Your task to perform on an android device: Search for sushi restaurants on Maps Image 0: 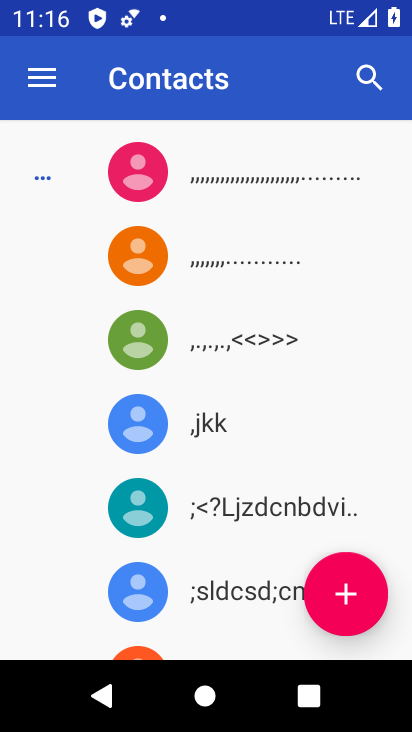
Step 0: press home button
Your task to perform on an android device: Search for sushi restaurants on Maps Image 1: 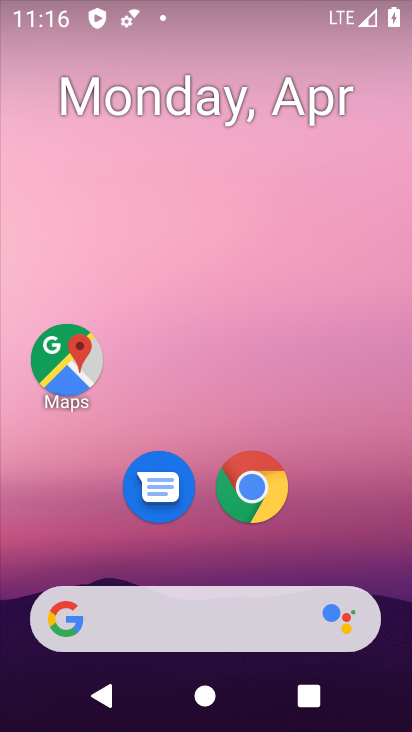
Step 1: click (377, 533)
Your task to perform on an android device: Search for sushi restaurants on Maps Image 2: 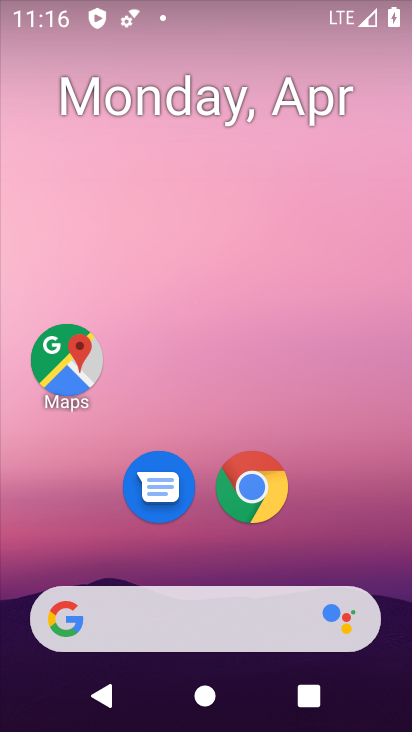
Step 2: drag from (353, 276) to (306, 41)
Your task to perform on an android device: Search for sushi restaurants on Maps Image 3: 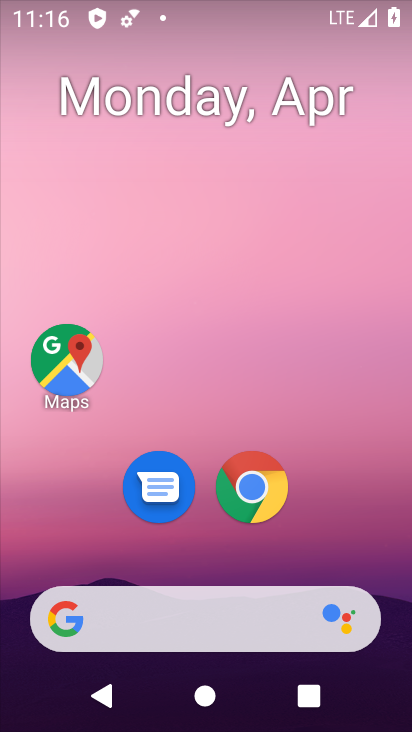
Step 3: drag from (384, 573) to (358, 154)
Your task to perform on an android device: Search for sushi restaurants on Maps Image 4: 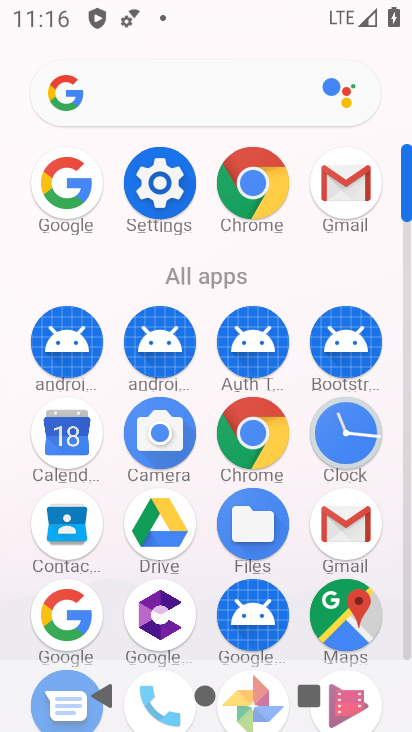
Step 4: click (351, 619)
Your task to perform on an android device: Search for sushi restaurants on Maps Image 5: 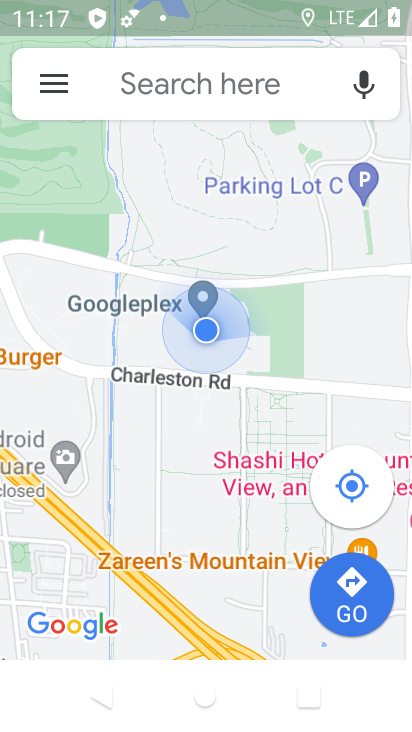
Step 5: click (238, 72)
Your task to perform on an android device: Search for sushi restaurants on Maps Image 6: 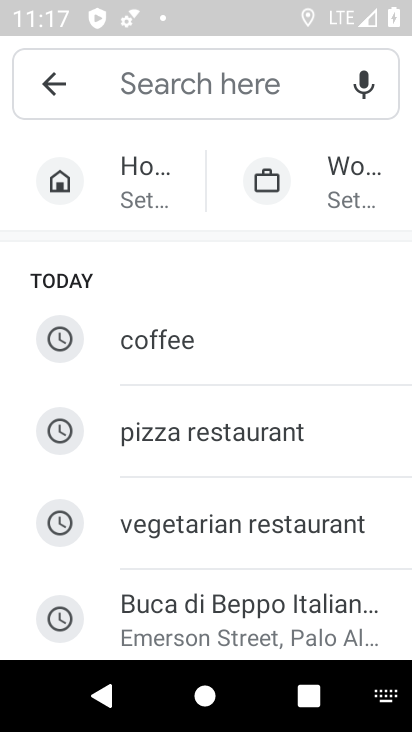
Step 6: type "sushi restaurants"
Your task to perform on an android device: Search for sushi restaurants on Maps Image 7: 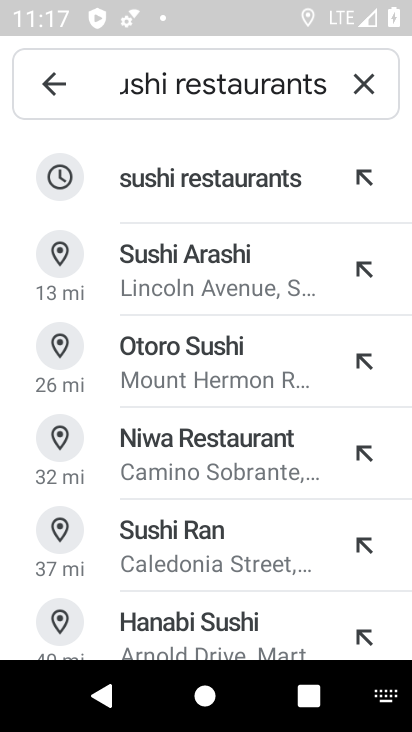
Step 7: click (291, 171)
Your task to perform on an android device: Search for sushi restaurants on Maps Image 8: 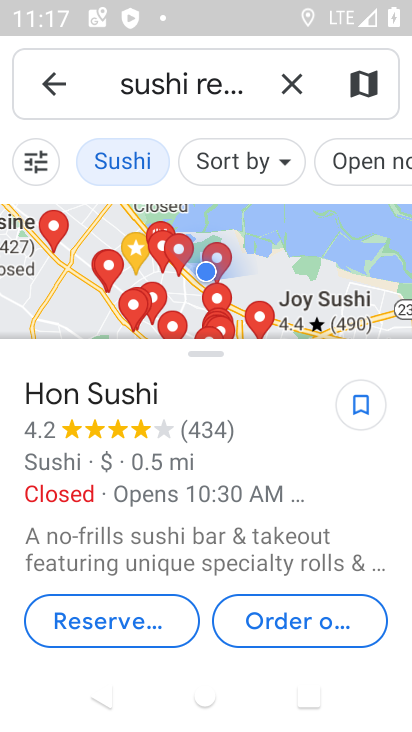
Step 8: task complete